Your task to perform on an android device: change keyboard looks Image 0: 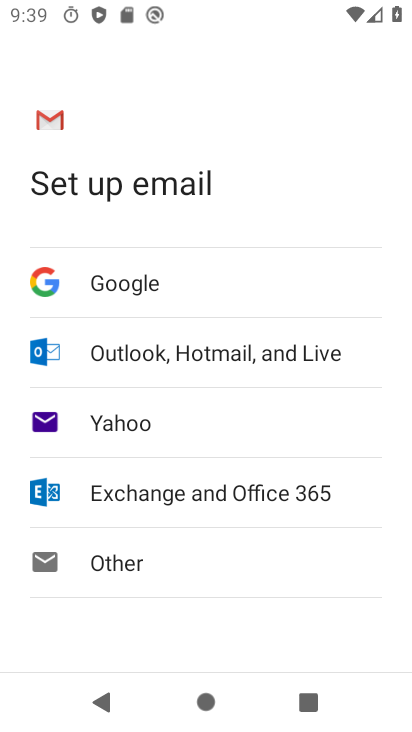
Step 0: press home button
Your task to perform on an android device: change keyboard looks Image 1: 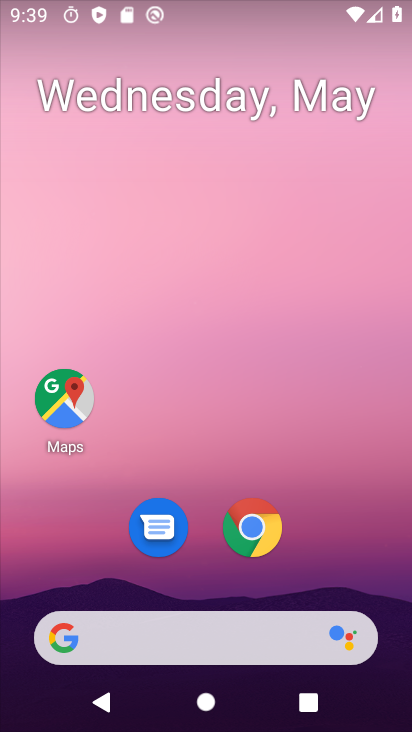
Step 1: drag from (309, 568) to (326, 161)
Your task to perform on an android device: change keyboard looks Image 2: 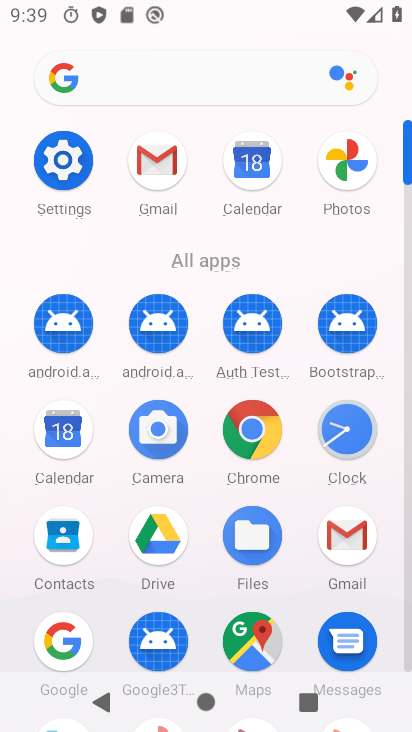
Step 2: click (47, 159)
Your task to perform on an android device: change keyboard looks Image 3: 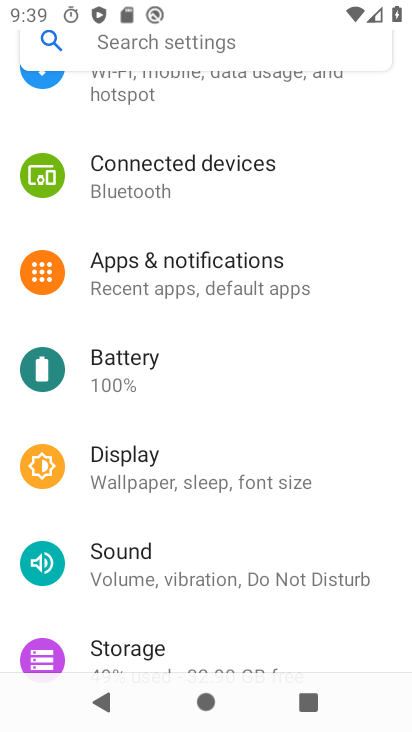
Step 3: drag from (236, 562) to (304, 119)
Your task to perform on an android device: change keyboard looks Image 4: 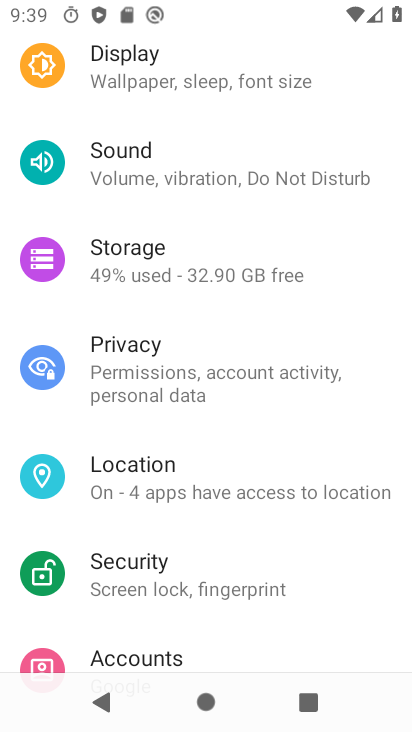
Step 4: drag from (203, 624) to (358, 114)
Your task to perform on an android device: change keyboard looks Image 5: 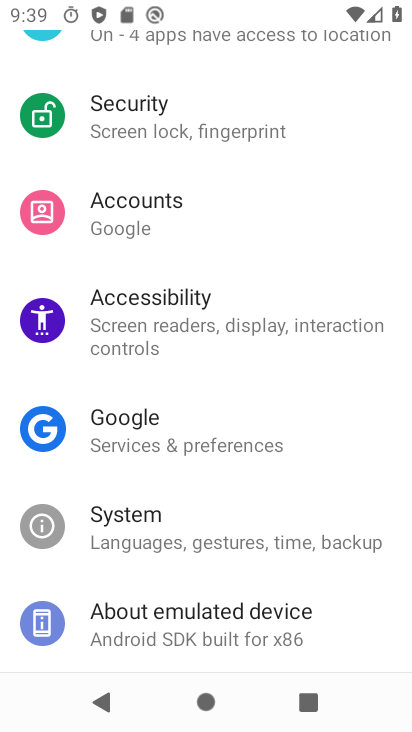
Step 5: click (209, 542)
Your task to perform on an android device: change keyboard looks Image 6: 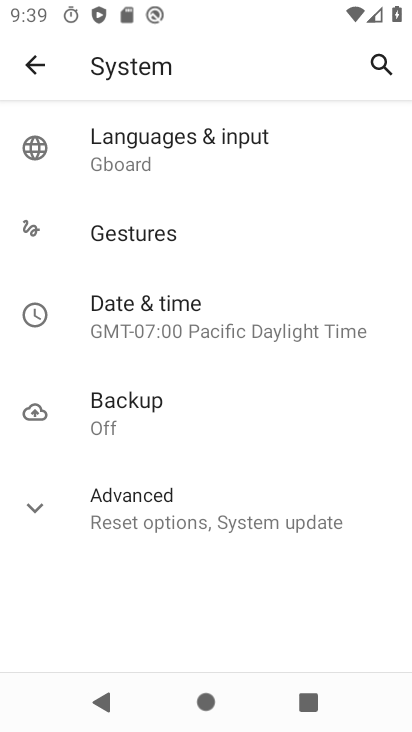
Step 6: click (165, 136)
Your task to perform on an android device: change keyboard looks Image 7: 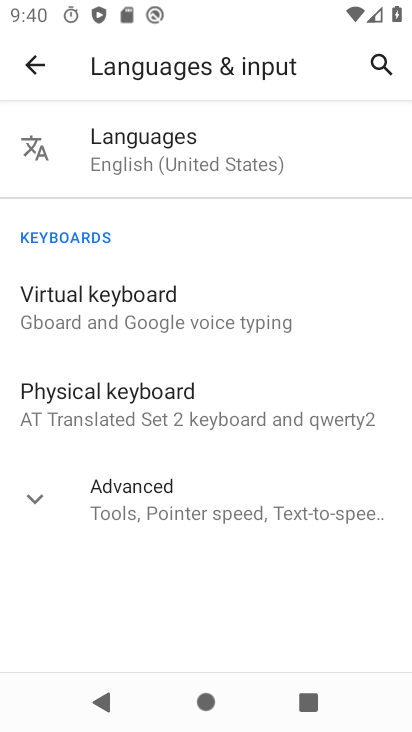
Step 7: click (150, 292)
Your task to perform on an android device: change keyboard looks Image 8: 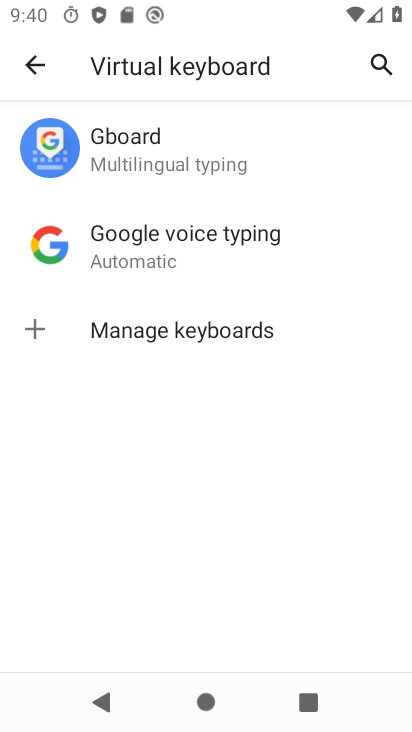
Step 8: click (132, 141)
Your task to perform on an android device: change keyboard looks Image 9: 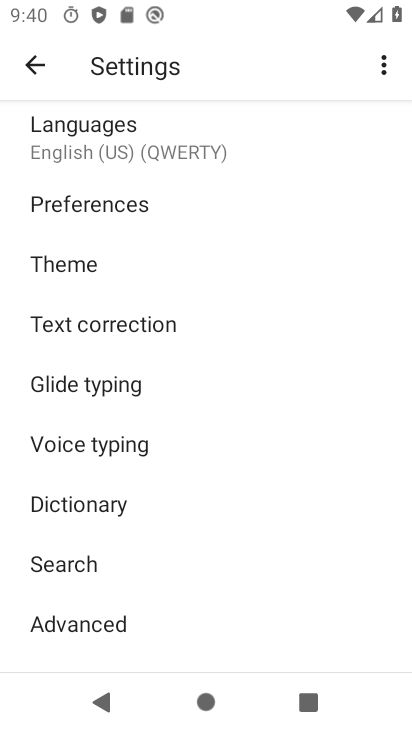
Step 9: click (59, 269)
Your task to perform on an android device: change keyboard looks Image 10: 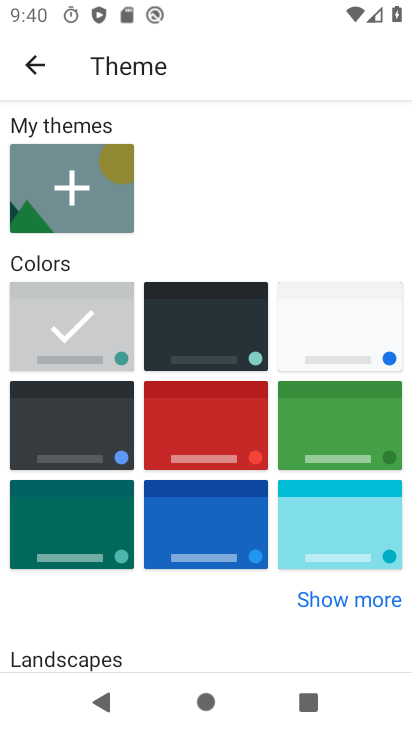
Step 10: click (203, 345)
Your task to perform on an android device: change keyboard looks Image 11: 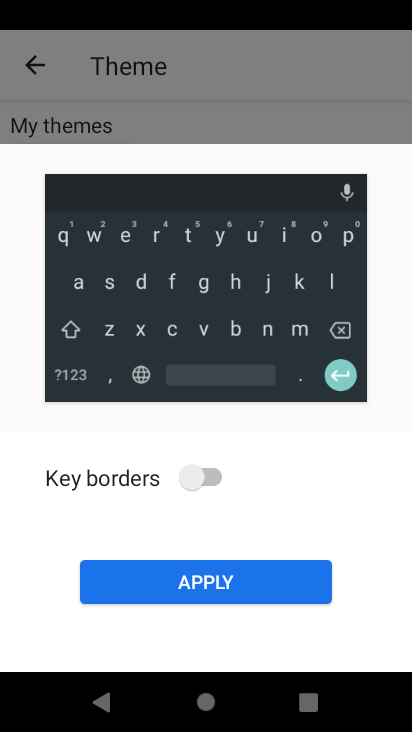
Step 11: click (210, 474)
Your task to perform on an android device: change keyboard looks Image 12: 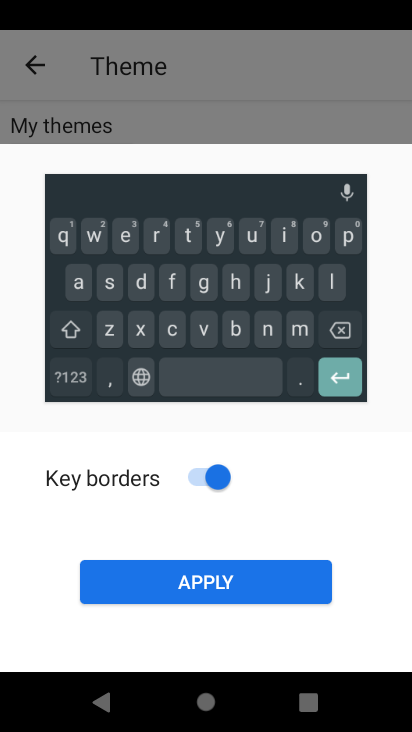
Step 12: click (226, 587)
Your task to perform on an android device: change keyboard looks Image 13: 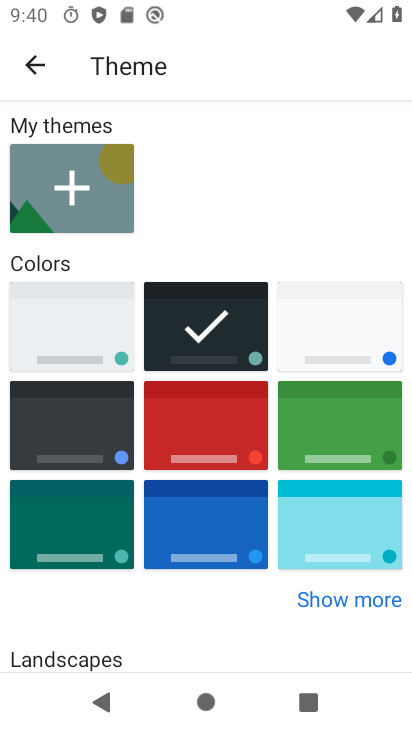
Step 13: task complete